Your task to perform on an android device: Search for vegetarian restaurants on Maps Image 0: 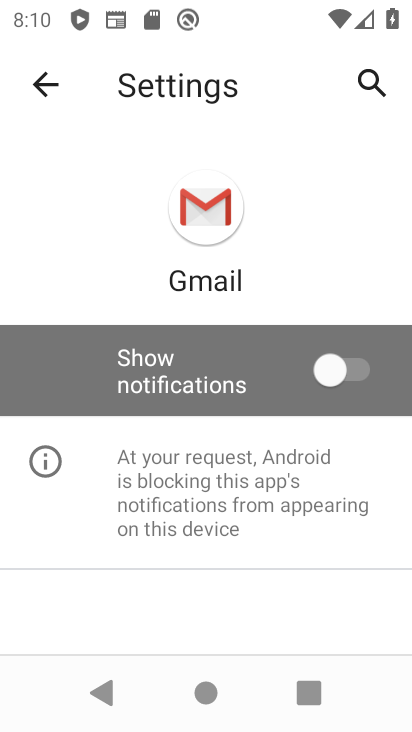
Step 0: press home button
Your task to perform on an android device: Search for vegetarian restaurants on Maps Image 1: 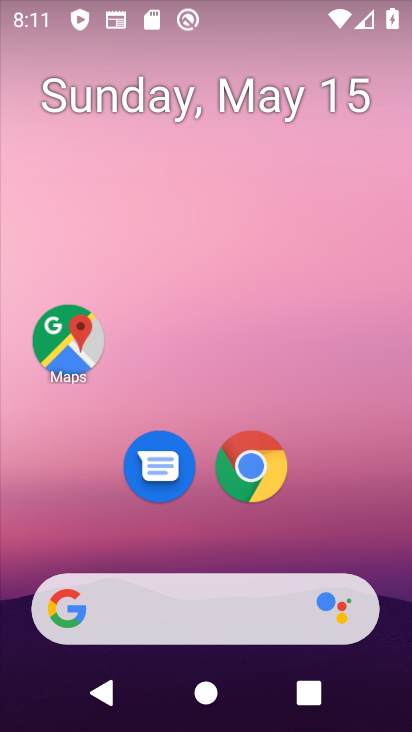
Step 1: click (55, 342)
Your task to perform on an android device: Search for vegetarian restaurants on Maps Image 2: 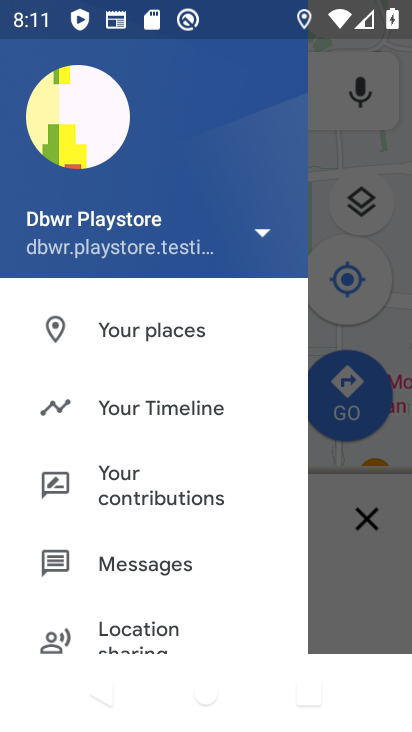
Step 2: click (343, 145)
Your task to perform on an android device: Search for vegetarian restaurants on Maps Image 3: 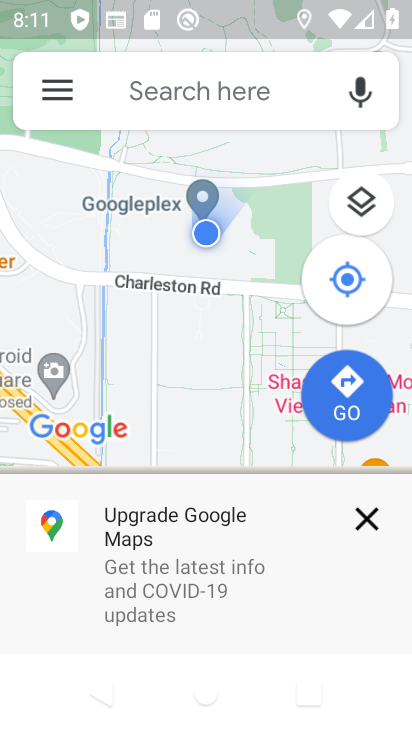
Step 3: click (180, 90)
Your task to perform on an android device: Search for vegetarian restaurants on Maps Image 4: 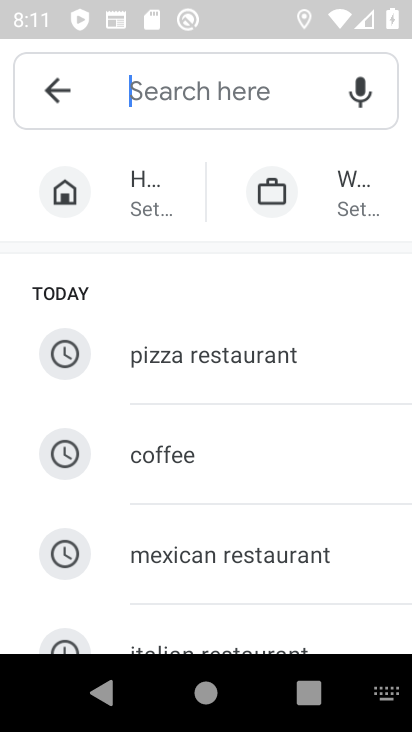
Step 4: drag from (258, 558) to (192, 17)
Your task to perform on an android device: Search for vegetarian restaurants on Maps Image 5: 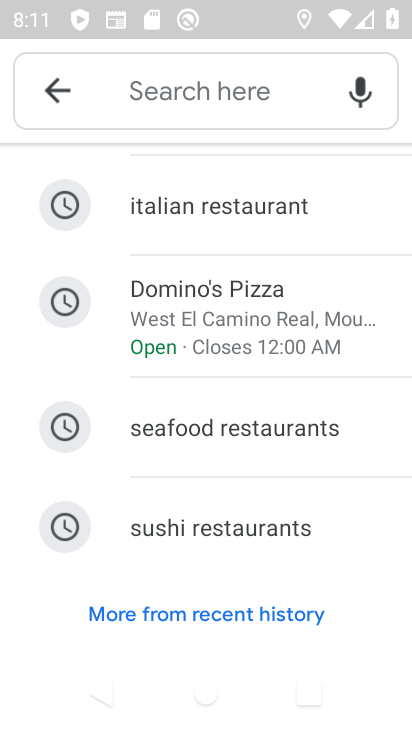
Step 5: click (155, 114)
Your task to perform on an android device: Search for vegetarian restaurants on Maps Image 6: 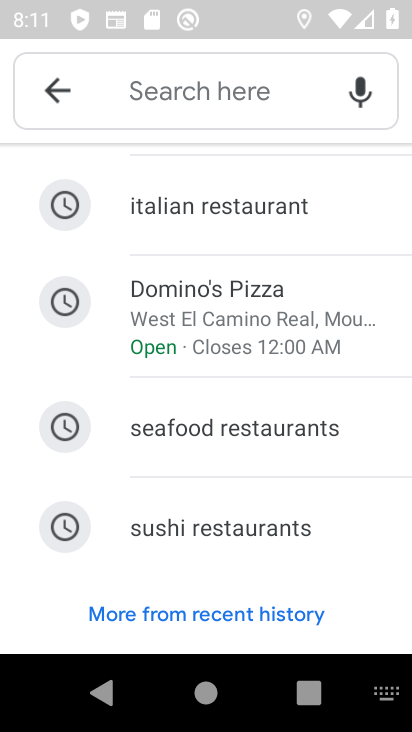
Step 6: type "vegetarian"
Your task to perform on an android device: Search for vegetarian restaurants on Maps Image 7: 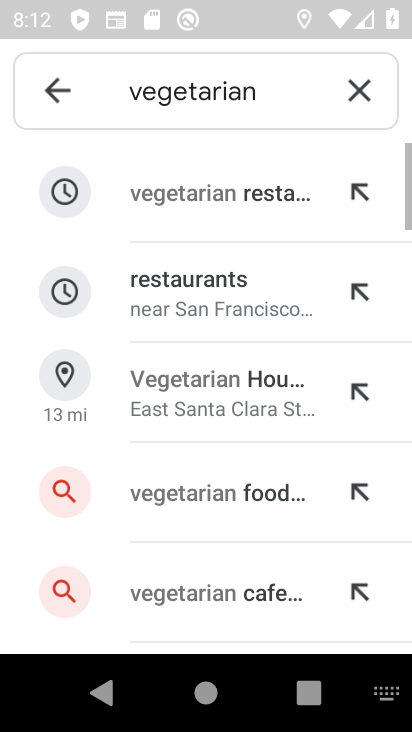
Step 7: click (175, 184)
Your task to perform on an android device: Search for vegetarian restaurants on Maps Image 8: 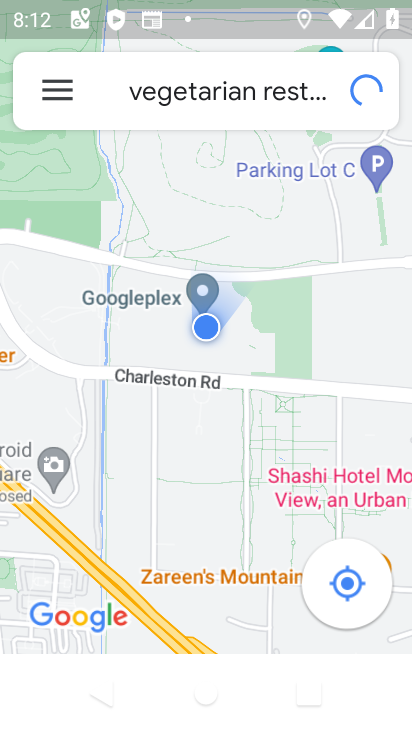
Step 8: task complete